Your task to perform on an android device: turn pop-ups off in chrome Image 0: 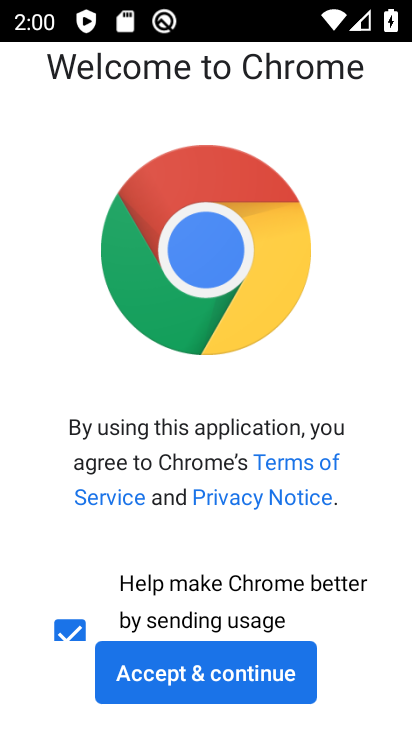
Step 0: click (239, 657)
Your task to perform on an android device: turn pop-ups off in chrome Image 1: 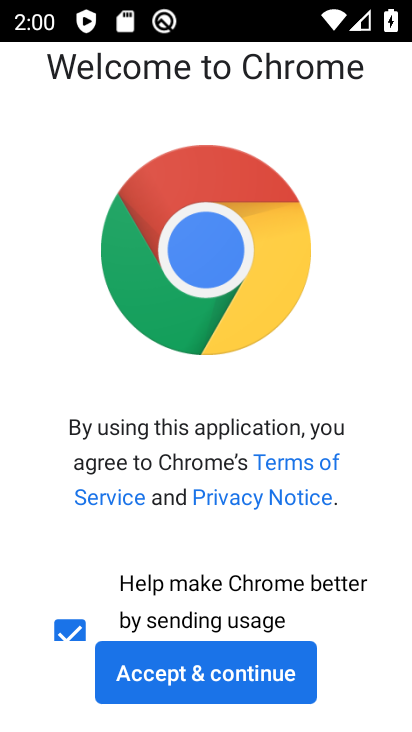
Step 1: click (234, 662)
Your task to perform on an android device: turn pop-ups off in chrome Image 2: 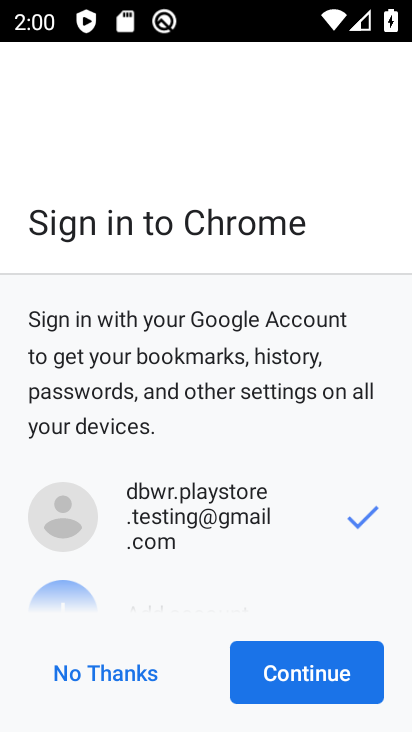
Step 2: click (284, 674)
Your task to perform on an android device: turn pop-ups off in chrome Image 3: 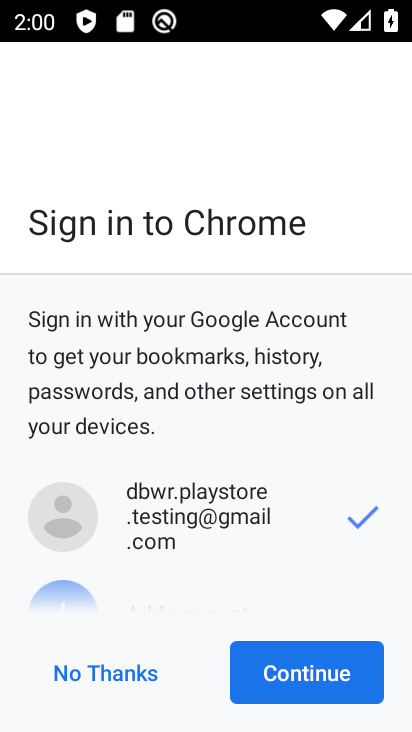
Step 3: click (284, 674)
Your task to perform on an android device: turn pop-ups off in chrome Image 4: 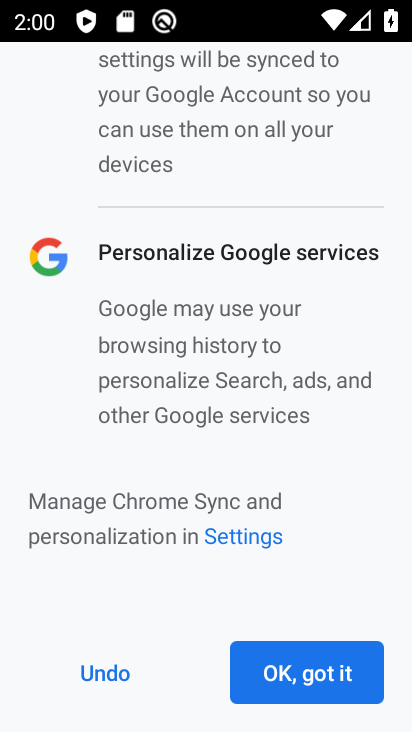
Step 4: click (299, 681)
Your task to perform on an android device: turn pop-ups off in chrome Image 5: 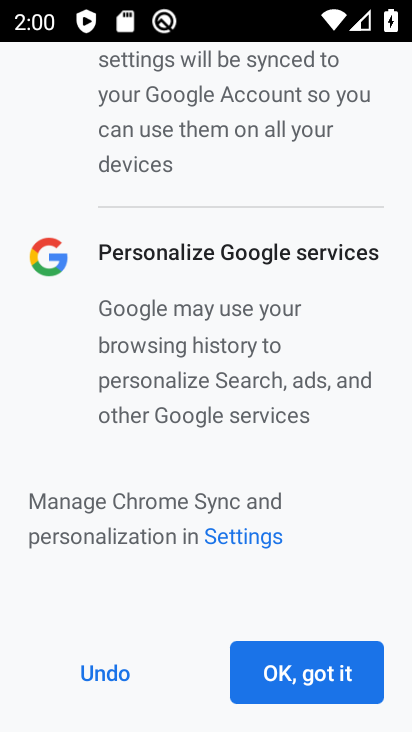
Step 5: click (296, 679)
Your task to perform on an android device: turn pop-ups off in chrome Image 6: 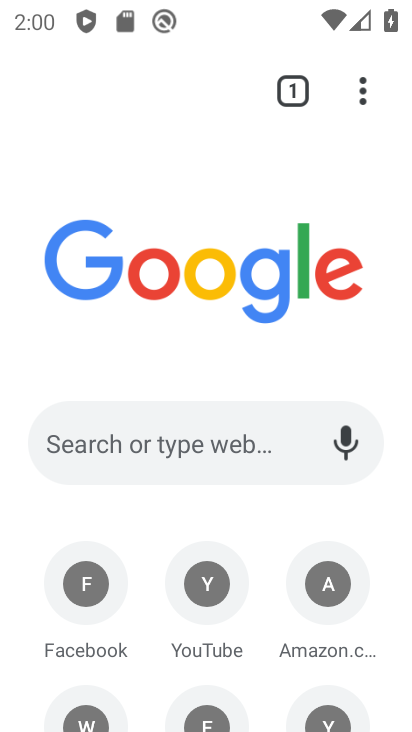
Step 6: drag from (358, 91) to (87, 556)
Your task to perform on an android device: turn pop-ups off in chrome Image 7: 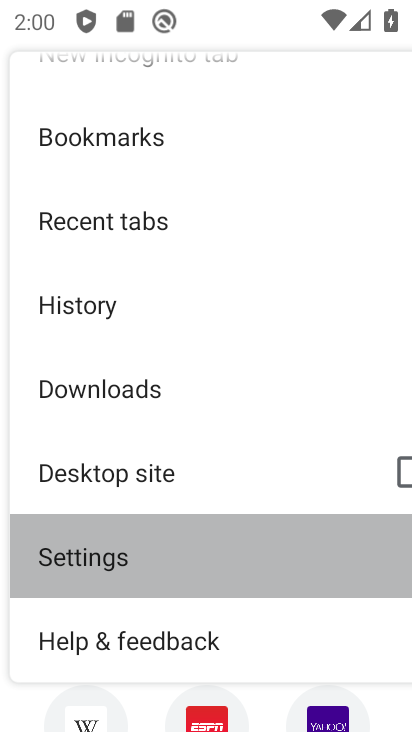
Step 7: click (52, 541)
Your task to perform on an android device: turn pop-ups off in chrome Image 8: 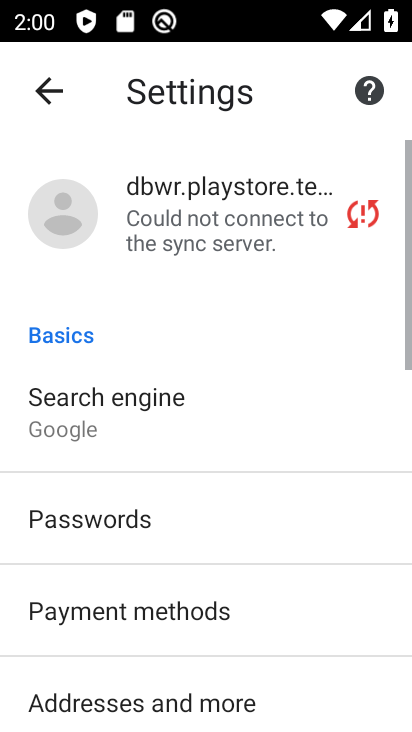
Step 8: drag from (271, 492) to (256, 53)
Your task to perform on an android device: turn pop-ups off in chrome Image 9: 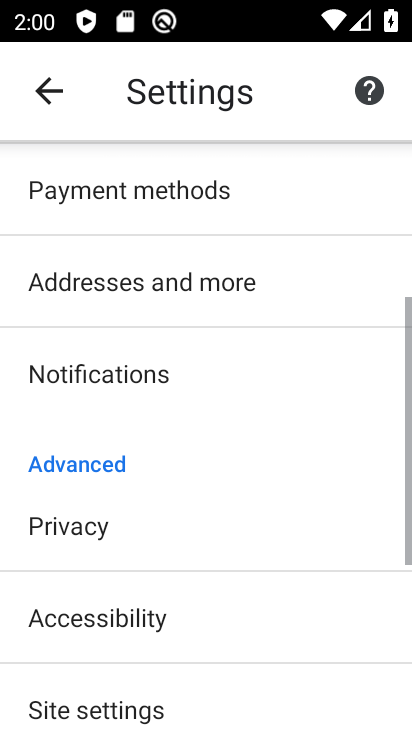
Step 9: drag from (268, 500) to (278, 64)
Your task to perform on an android device: turn pop-ups off in chrome Image 10: 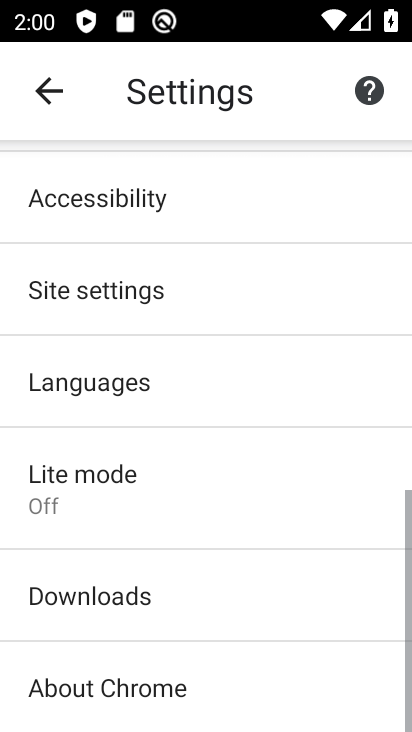
Step 10: drag from (202, 334) to (194, 120)
Your task to perform on an android device: turn pop-ups off in chrome Image 11: 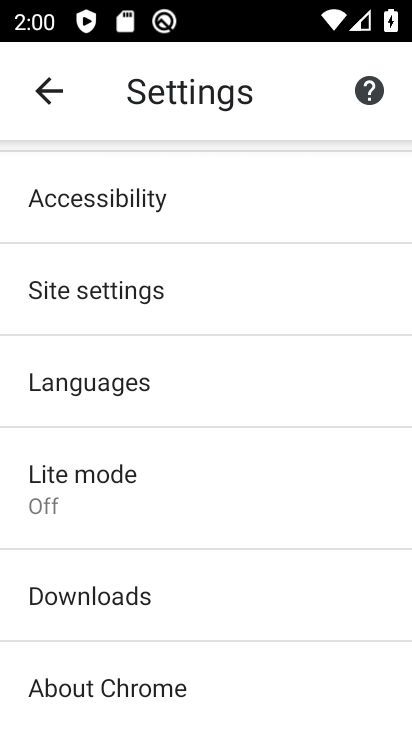
Step 11: click (94, 289)
Your task to perform on an android device: turn pop-ups off in chrome Image 12: 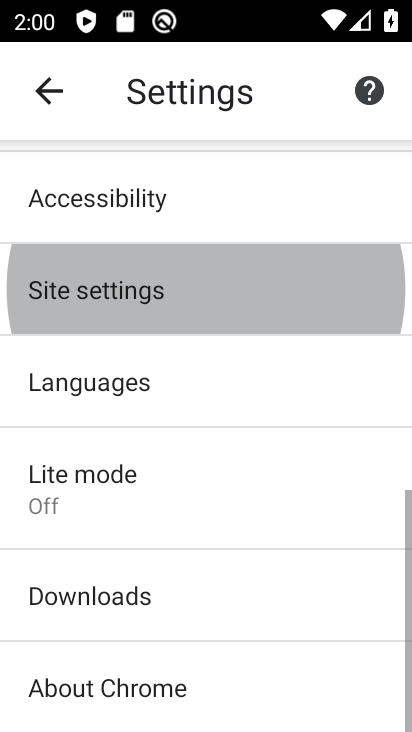
Step 12: click (94, 289)
Your task to perform on an android device: turn pop-ups off in chrome Image 13: 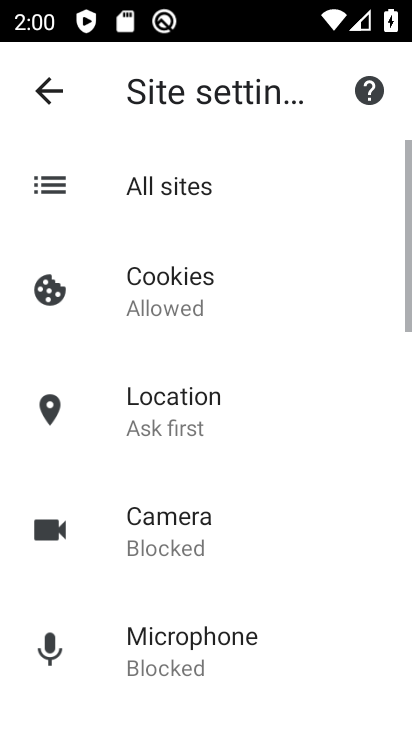
Step 13: drag from (189, 539) to (135, 144)
Your task to perform on an android device: turn pop-ups off in chrome Image 14: 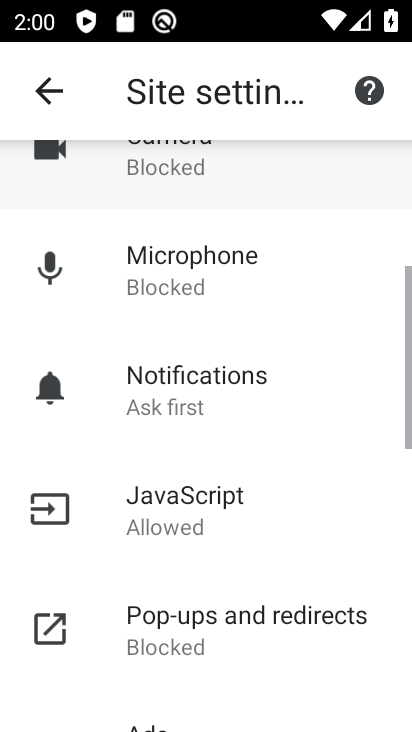
Step 14: drag from (209, 412) to (194, 85)
Your task to perform on an android device: turn pop-ups off in chrome Image 15: 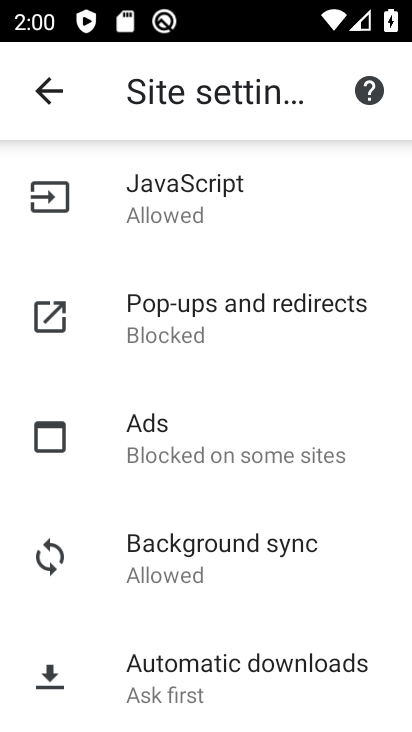
Step 15: drag from (227, 601) to (228, 199)
Your task to perform on an android device: turn pop-ups off in chrome Image 16: 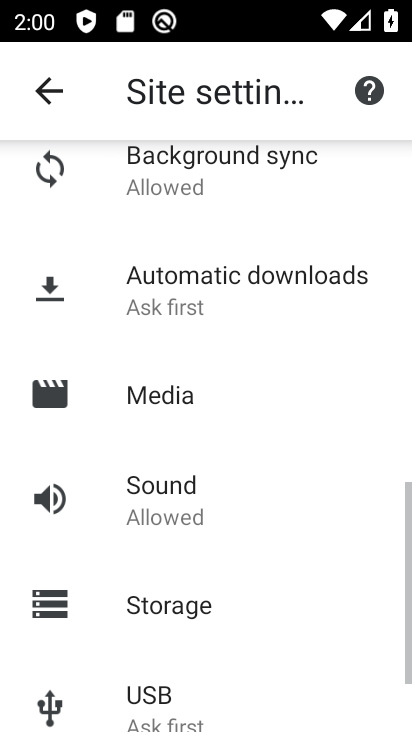
Step 16: drag from (167, 326) to (225, 590)
Your task to perform on an android device: turn pop-ups off in chrome Image 17: 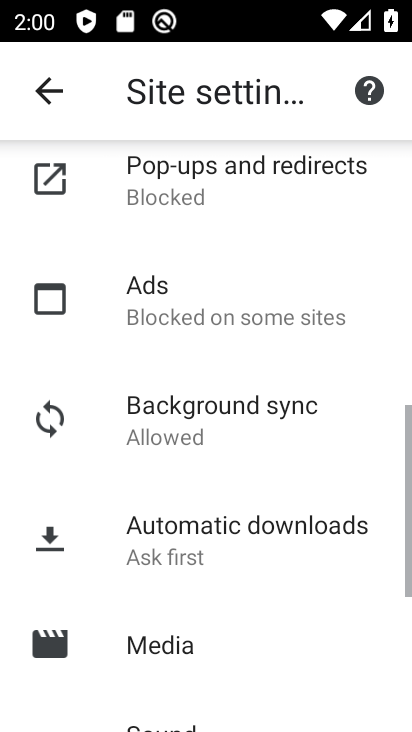
Step 17: drag from (224, 289) to (270, 501)
Your task to perform on an android device: turn pop-ups off in chrome Image 18: 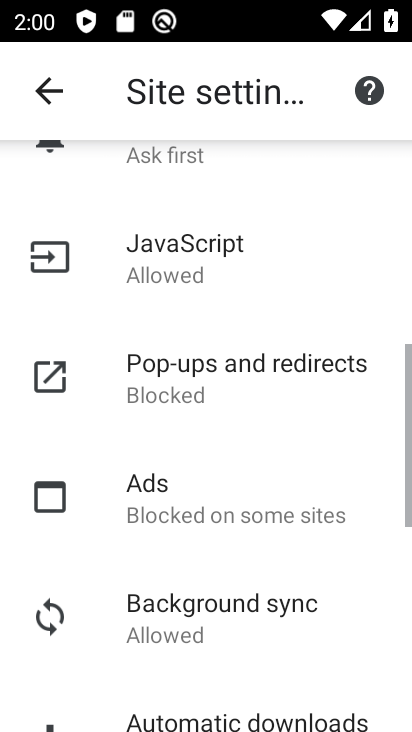
Step 18: click (231, 551)
Your task to perform on an android device: turn pop-ups off in chrome Image 19: 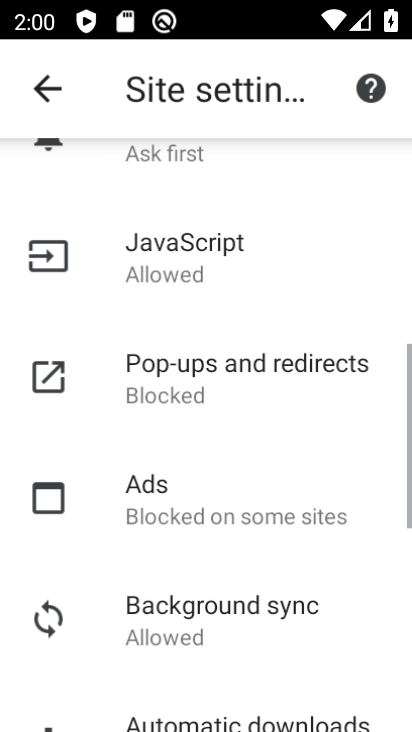
Step 19: click (165, 373)
Your task to perform on an android device: turn pop-ups off in chrome Image 20: 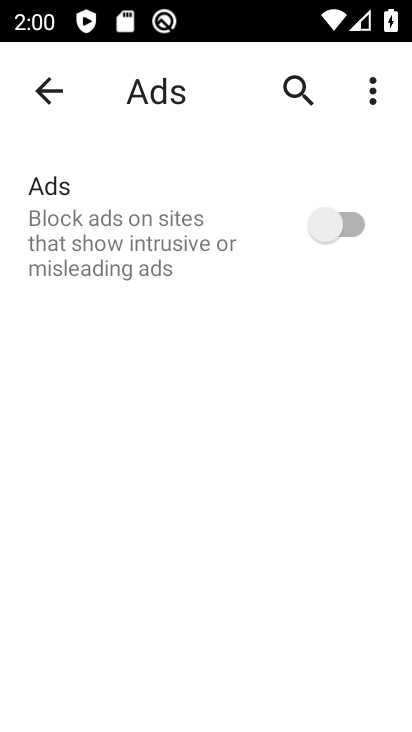
Step 20: click (166, 372)
Your task to perform on an android device: turn pop-ups off in chrome Image 21: 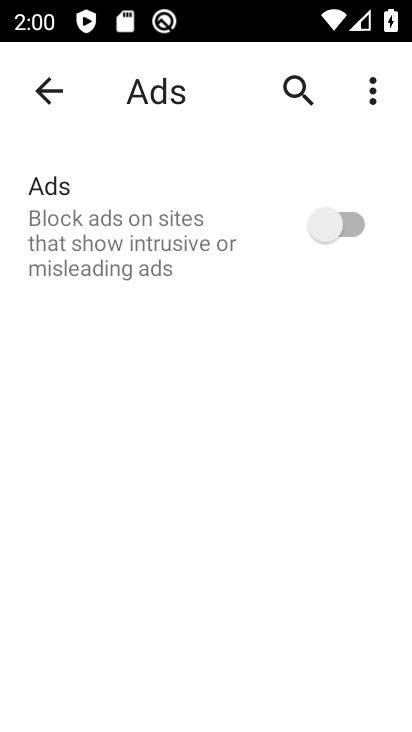
Step 21: click (168, 374)
Your task to perform on an android device: turn pop-ups off in chrome Image 22: 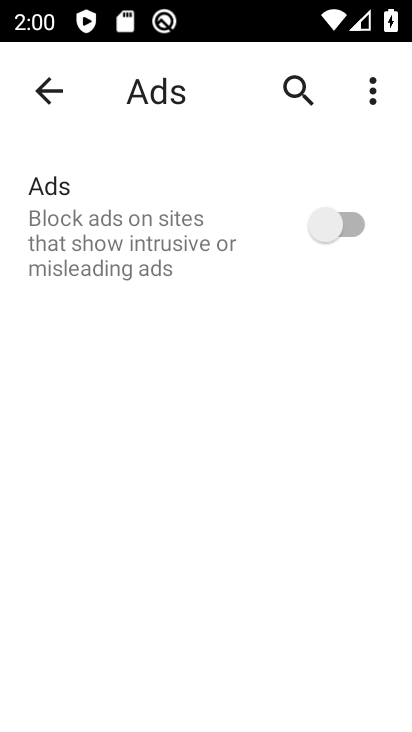
Step 22: click (37, 84)
Your task to perform on an android device: turn pop-ups off in chrome Image 23: 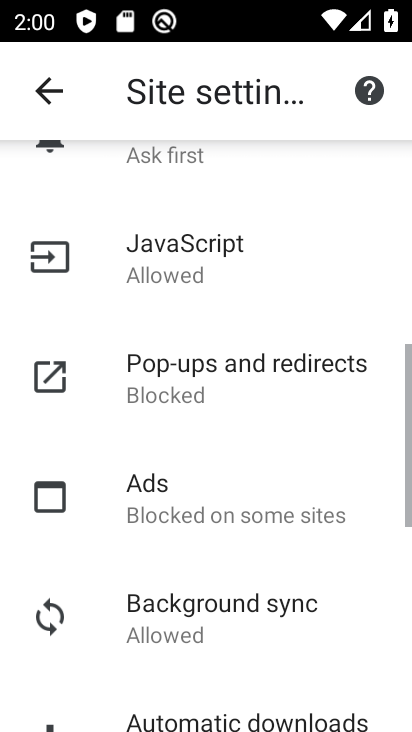
Step 23: click (186, 370)
Your task to perform on an android device: turn pop-ups off in chrome Image 24: 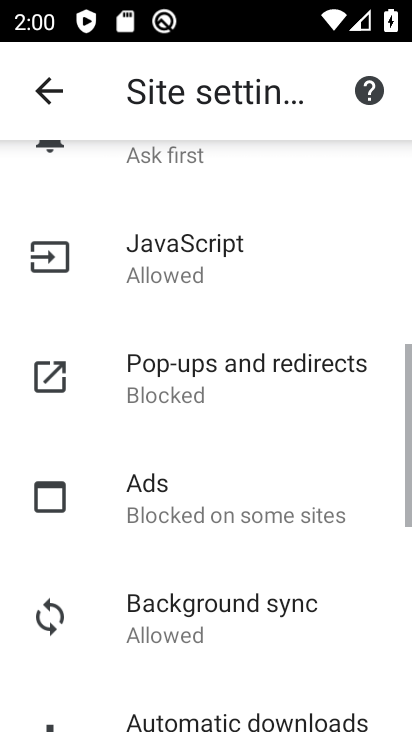
Step 24: click (186, 370)
Your task to perform on an android device: turn pop-ups off in chrome Image 25: 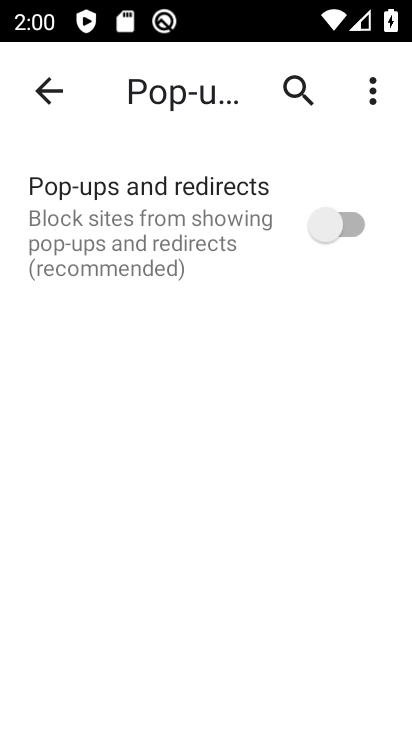
Step 25: task complete